Your task to perform on an android device: Is it going to rain today? Image 0: 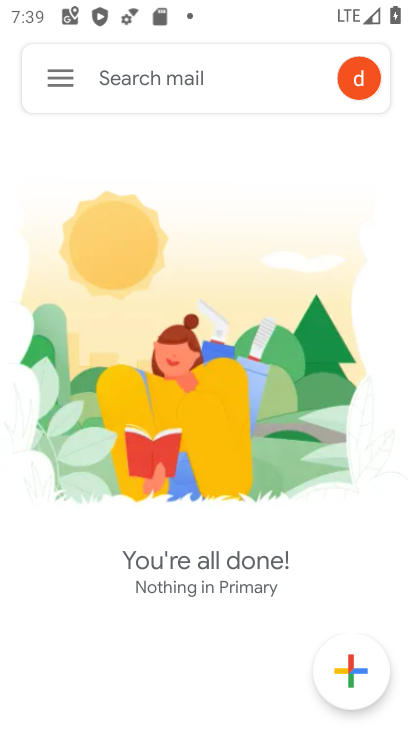
Step 0: press home button
Your task to perform on an android device: Is it going to rain today? Image 1: 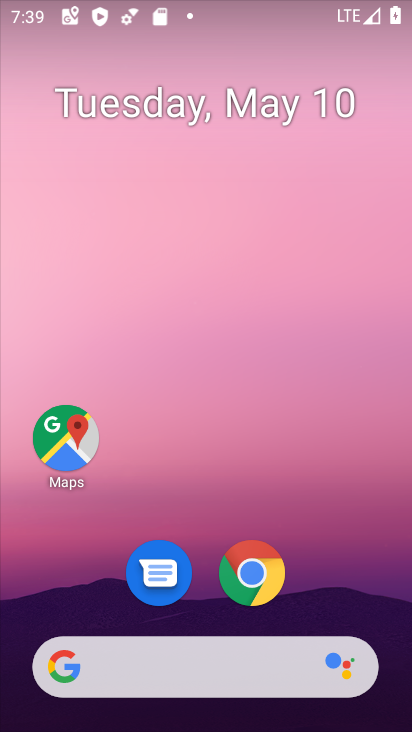
Step 1: drag from (30, 265) to (364, 237)
Your task to perform on an android device: Is it going to rain today? Image 2: 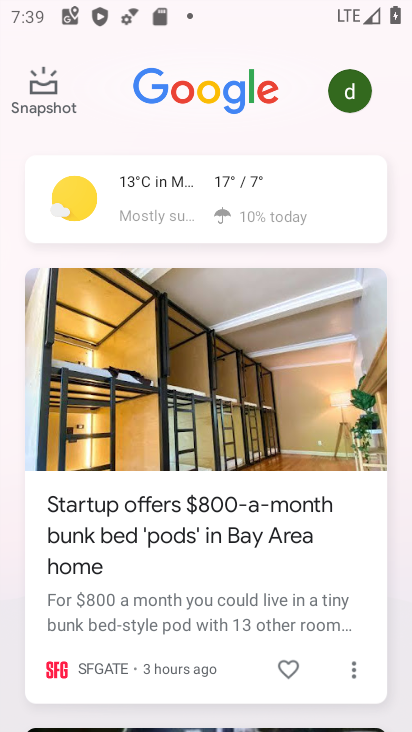
Step 2: click (189, 185)
Your task to perform on an android device: Is it going to rain today? Image 3: 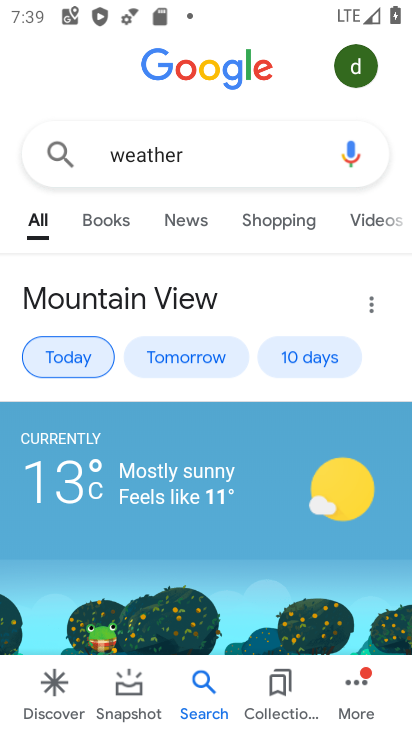
Step 3: task complete